Your task to perform on an android device: open sync settings in chrome Image 0: 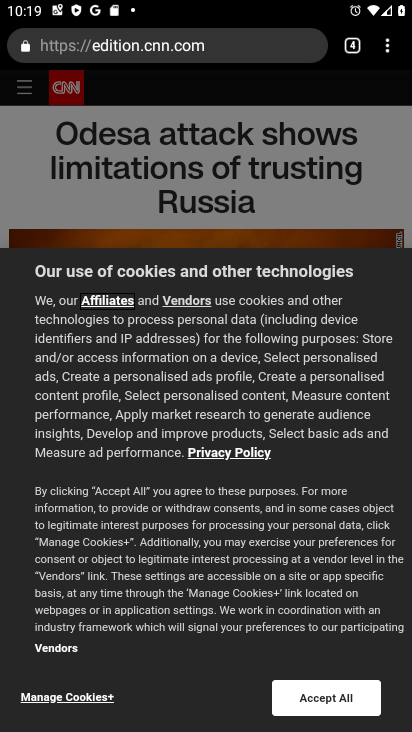
Step 0: press home button
Your task to perform on an android device: open sync settings in chrome Image 1: 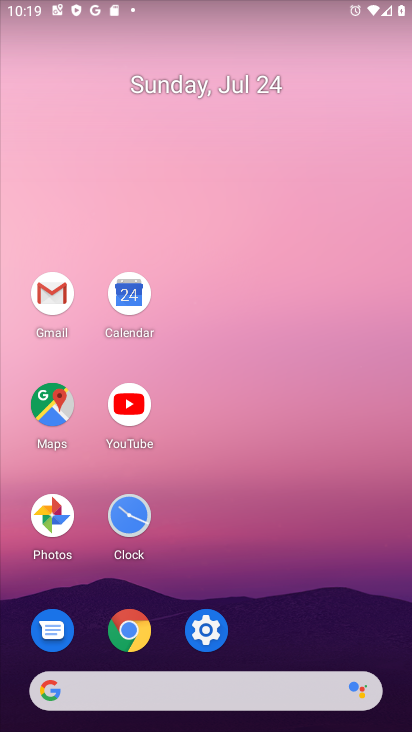
Step 1: click (127, 634)
Your task to perform on an android device: open sync settings in chrome Image 2: 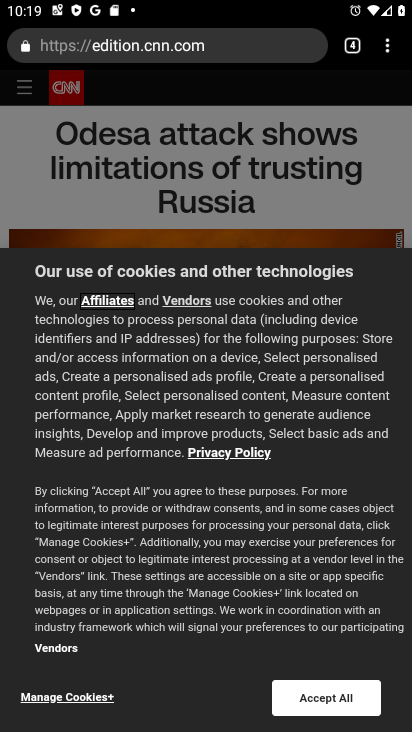
Step 2: click (388, 42)
Your task to perform on an android device: open sync settings in chrome Image 3: 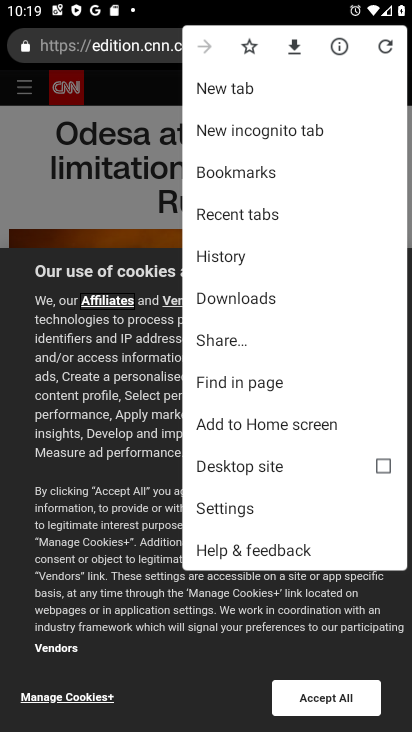
Step 3: click (228, 506)
Your task to perform on an android device: open sync settings in chrome Image 4: 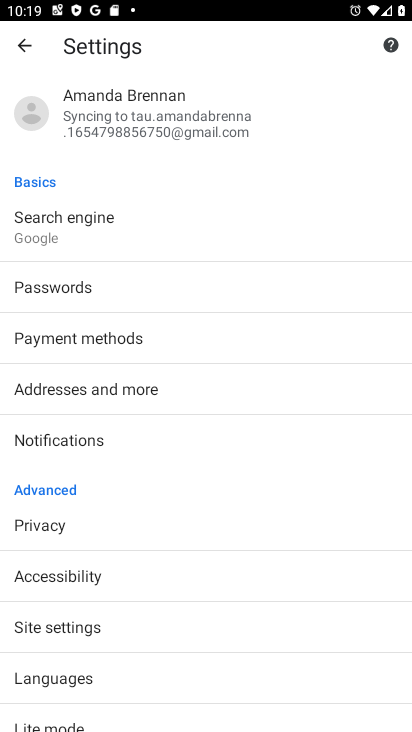
Step 4: click (119, 102)
Your task to perform on an android device: open sync settings in chrome Image 5: 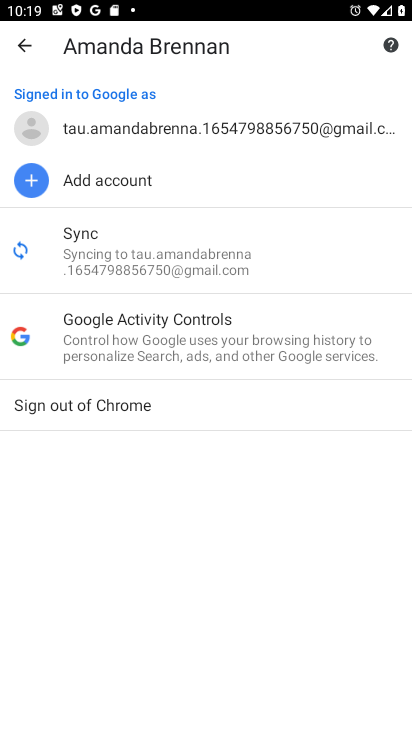
Step 5: click (84, 253)
Your task to perform on an android device: open sync settings in chrome Image 6: 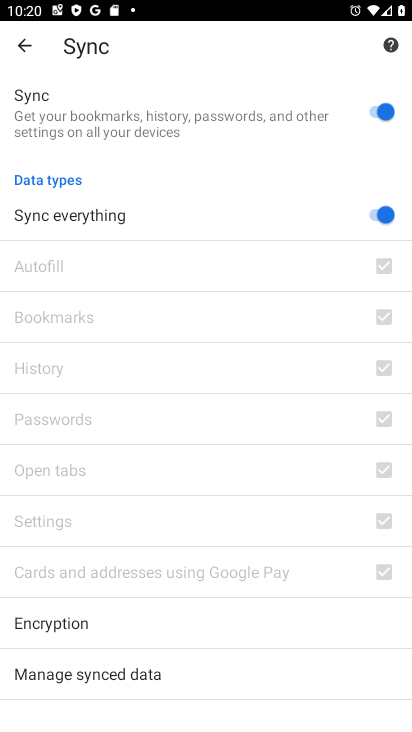
Step 6: task complete